Your task to perform on an android device: Open CNN.com Image 0: 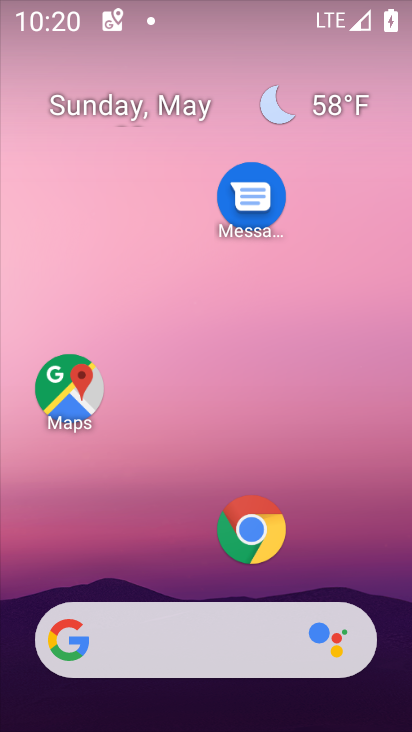
Step 0: click (251, 541)
Your task to perform on an android device: Open CNN.com Image 1: 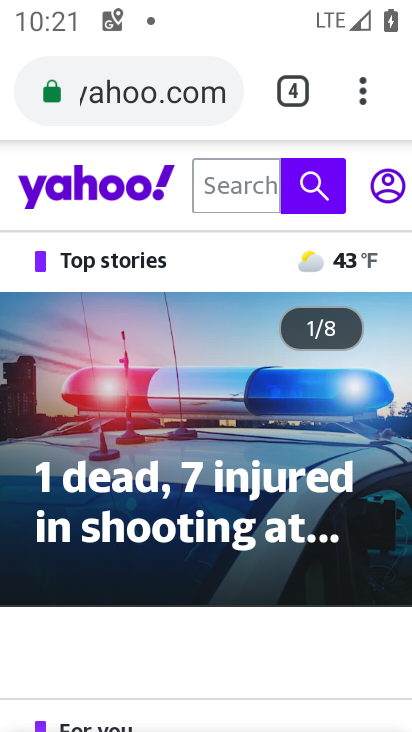
Step 1: click (130, 80)
Your task to perform on an android device: Open CNN.com Image 2: 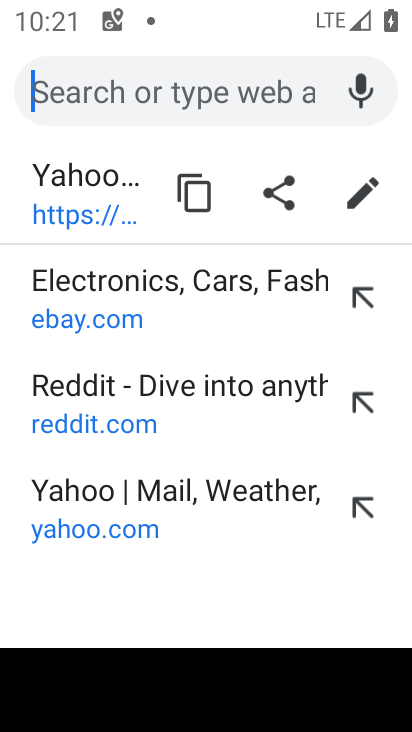
Step 2: type "CNN.com"
Your task to perform on an android device: Open CNN.com Image 3: 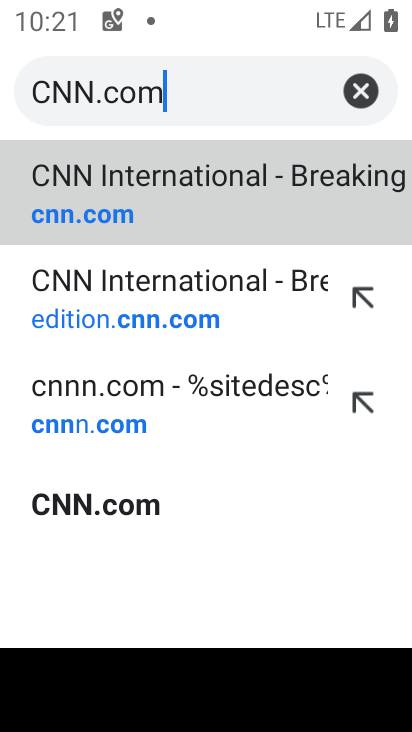
Step 3: click (211, 222)
Your task to perform on an android device: Open CNN.com Image 4: 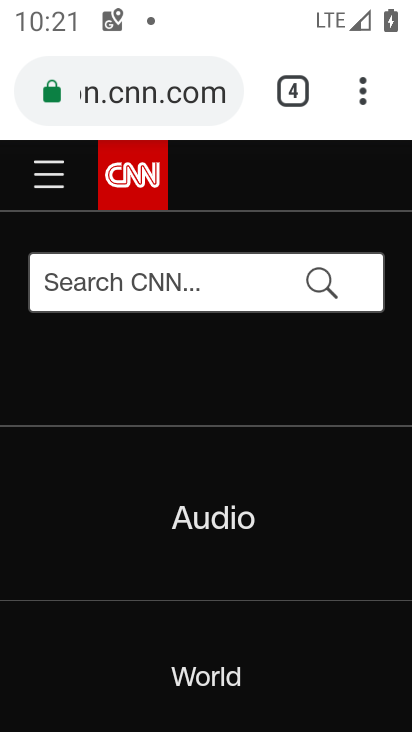
Step 4: task complete